Your task to perform on an android device: Search for "lenovo thinkpad" on walmart.com, select the first entry, add it to the cart, then select checkout. Image 0: 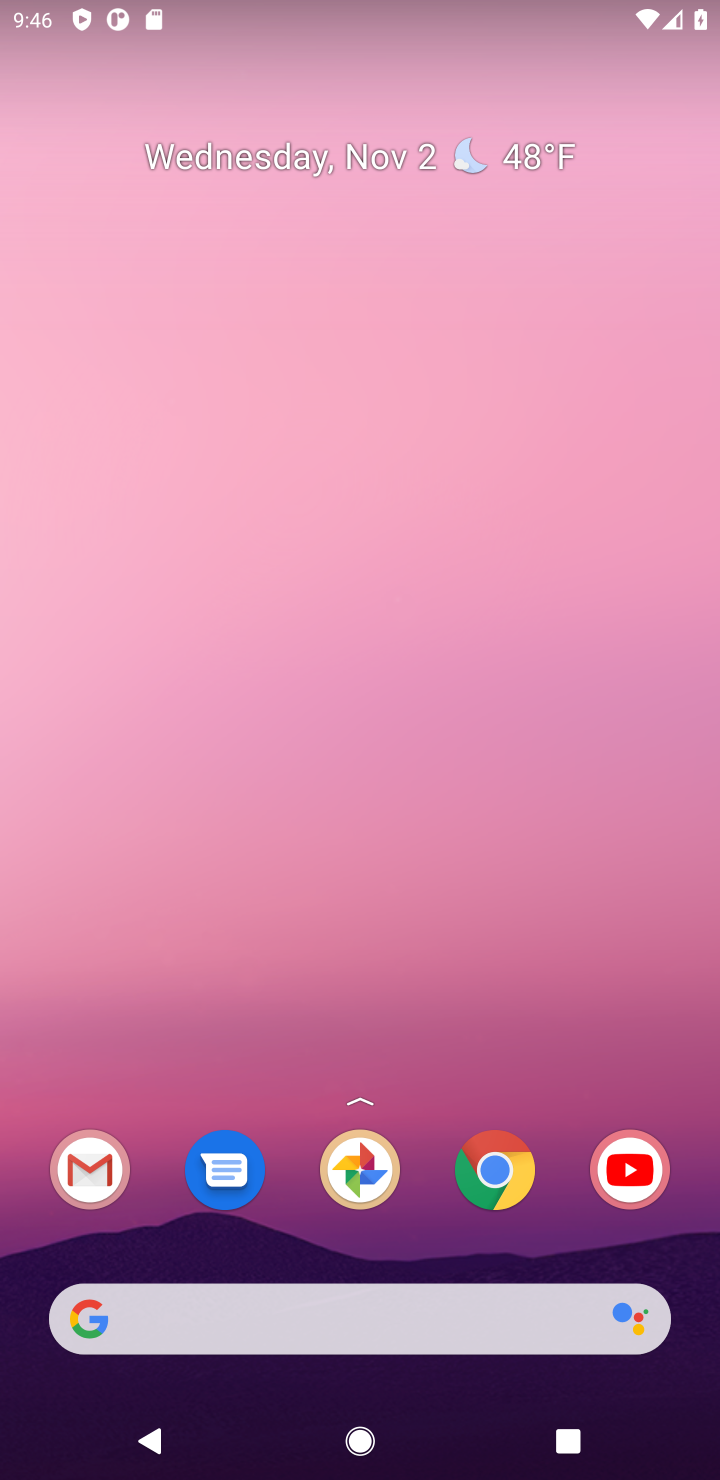
Step 0: drag from (335, 1121) to (416, 429)
Your task to perform on an android device: Search for "lenovo thinkpad" on walmart.com, select the first entry, add it to the cart, then select checkout. Image 1: 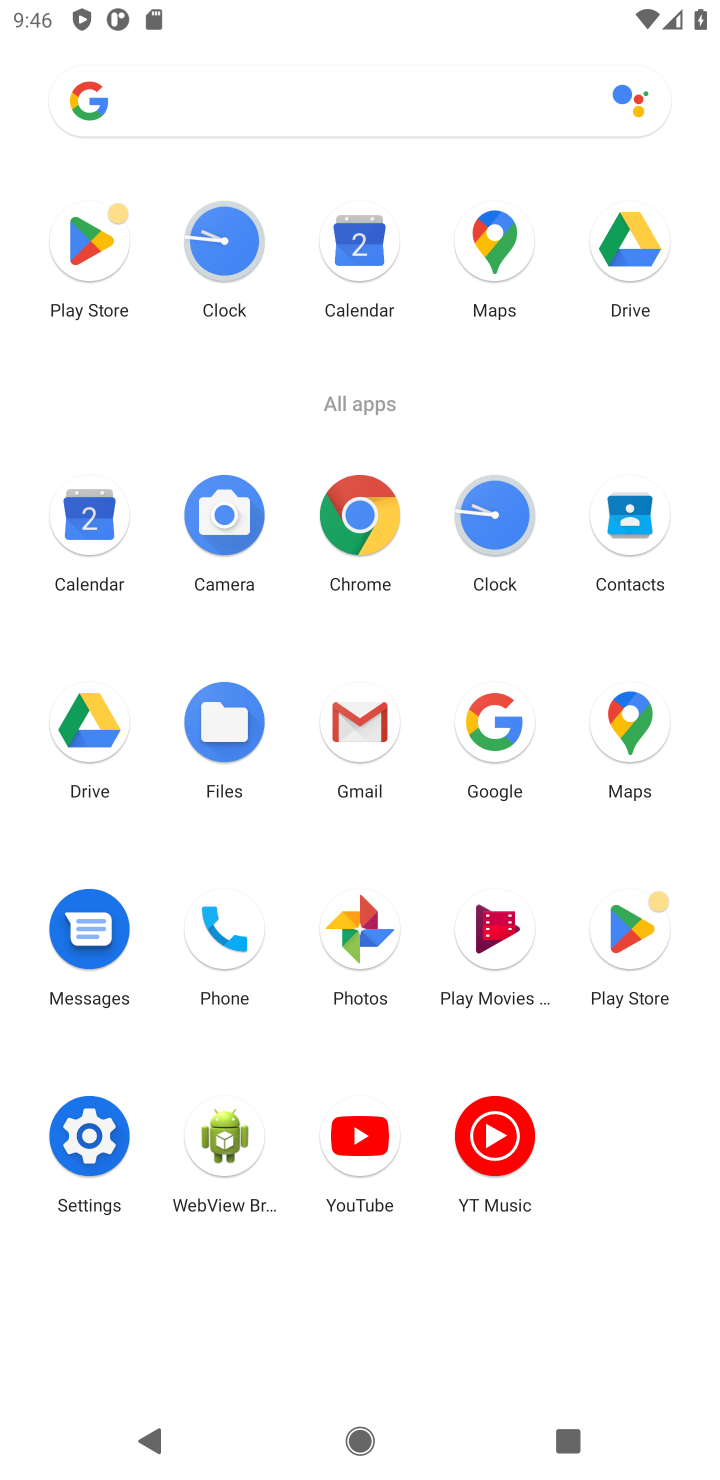
Step 1: click (476, 706)
Your task to perform on an android device: Search for "lenovo thinkpad" on walmart.com, select the first entry, add it to the cart, then select checkout. Image 2: 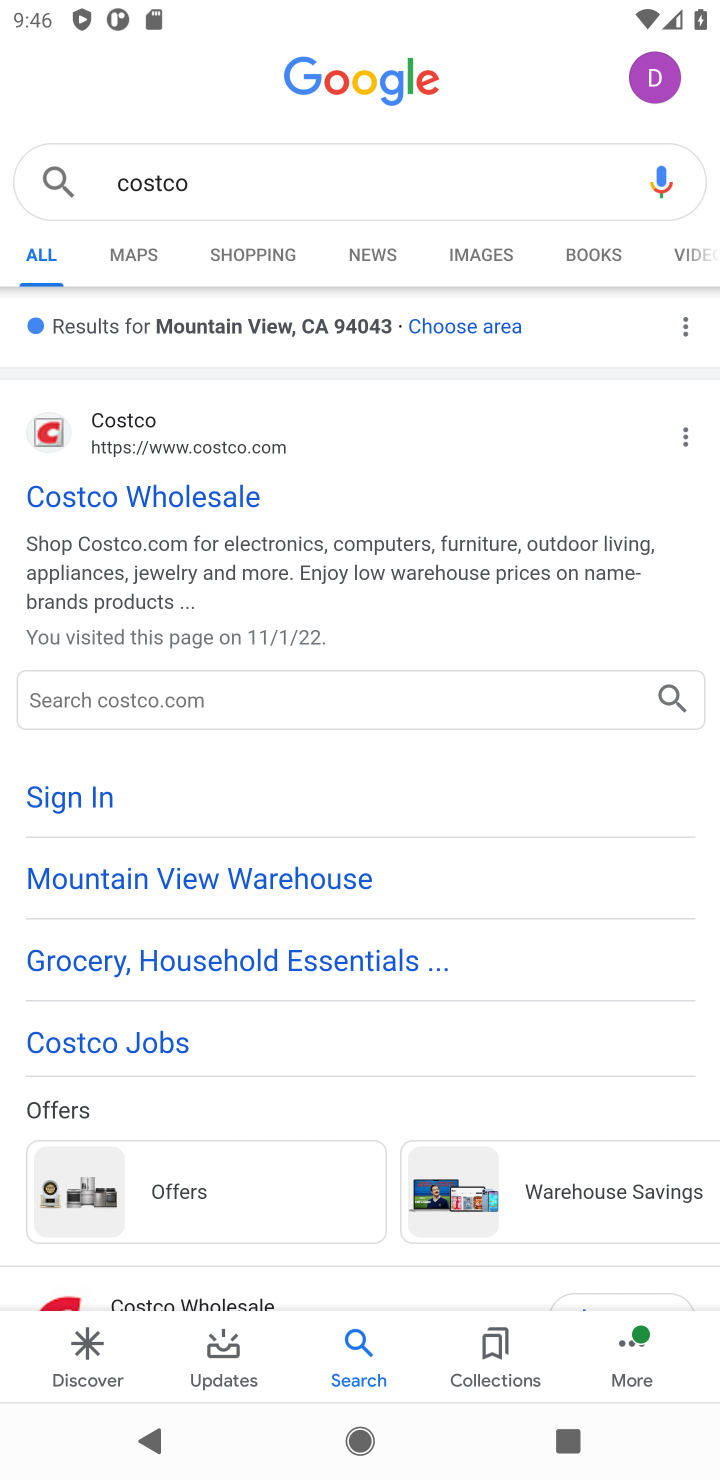
Step 2: click (274, 182)
Your task to perform on an android device: Search for "lenovo thinkpad" on walmart.com, select the first entry, add it to the cart, then select checkout. Image 3: 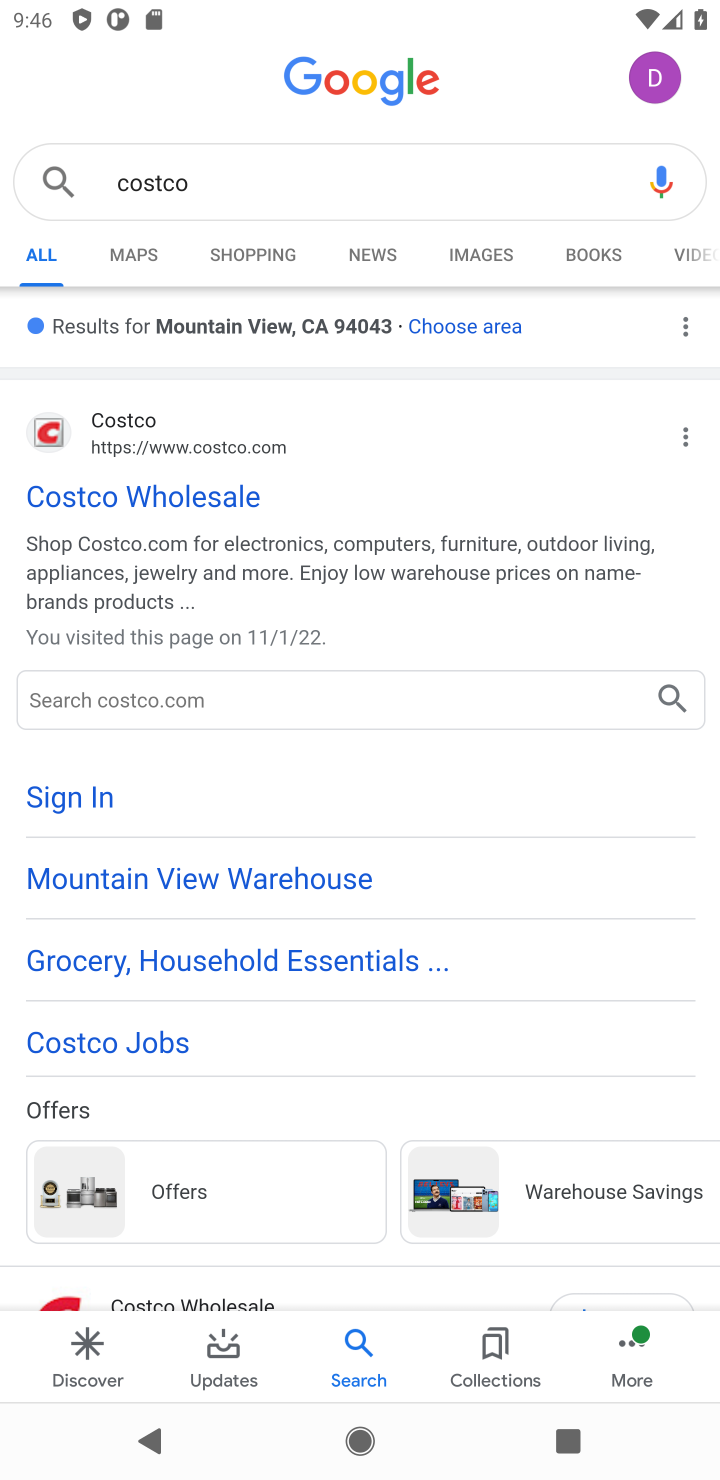
Step 3: click (274, 182)
Your task to perform on an android device: Search for "lenovo thinkpad" on walmart.com, select the first entry, add it to the cart, then select checkout. Image 4: 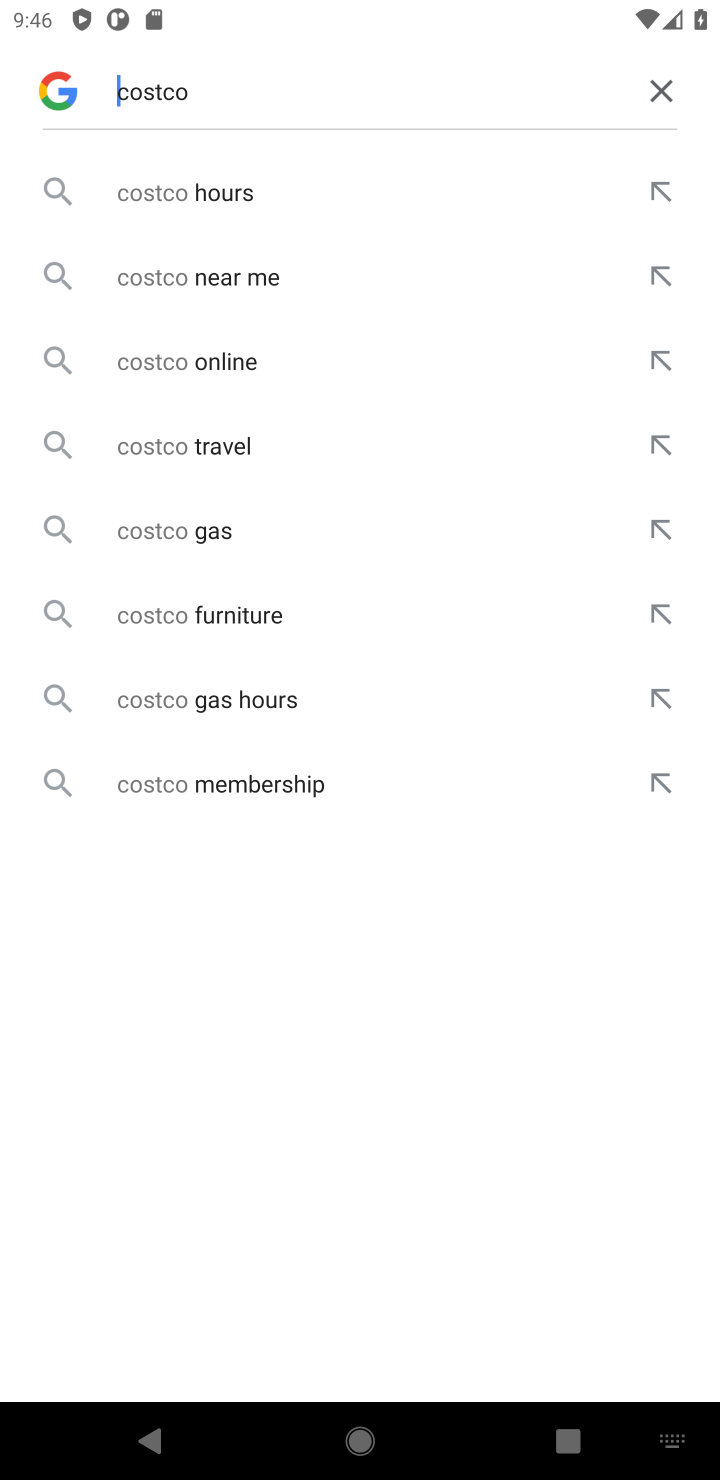
Step 4: click (670, 78)
Your task to perform on an android device: Search for "lenovo thinkpad" on walmart.com, select the first entry, add it to the cart, then select checkout. Image 5: 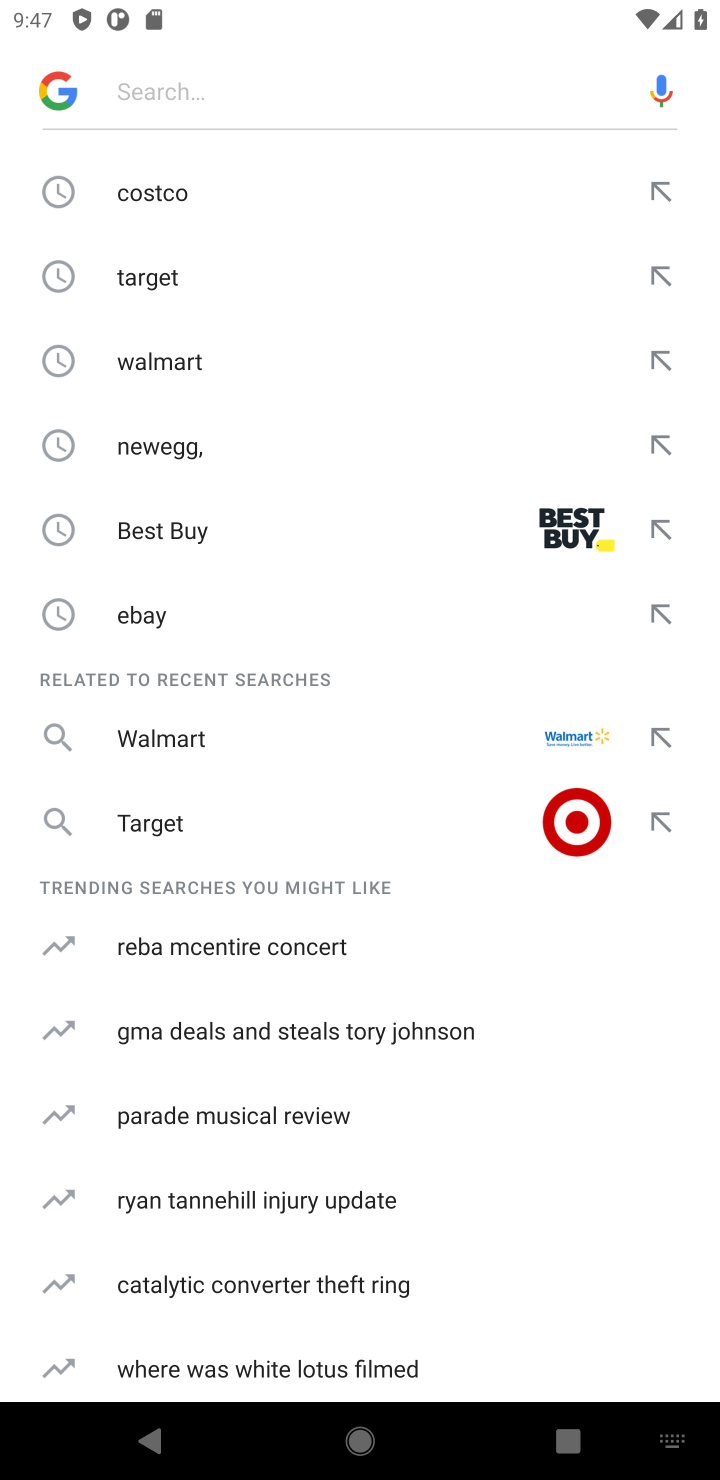
Step 5: click (230, 373)
Your task to perform on an android device: Search for "lenovo thinkpad" on walmart.com, select the first entry, add it to the cart, then select checkout. Image 6: 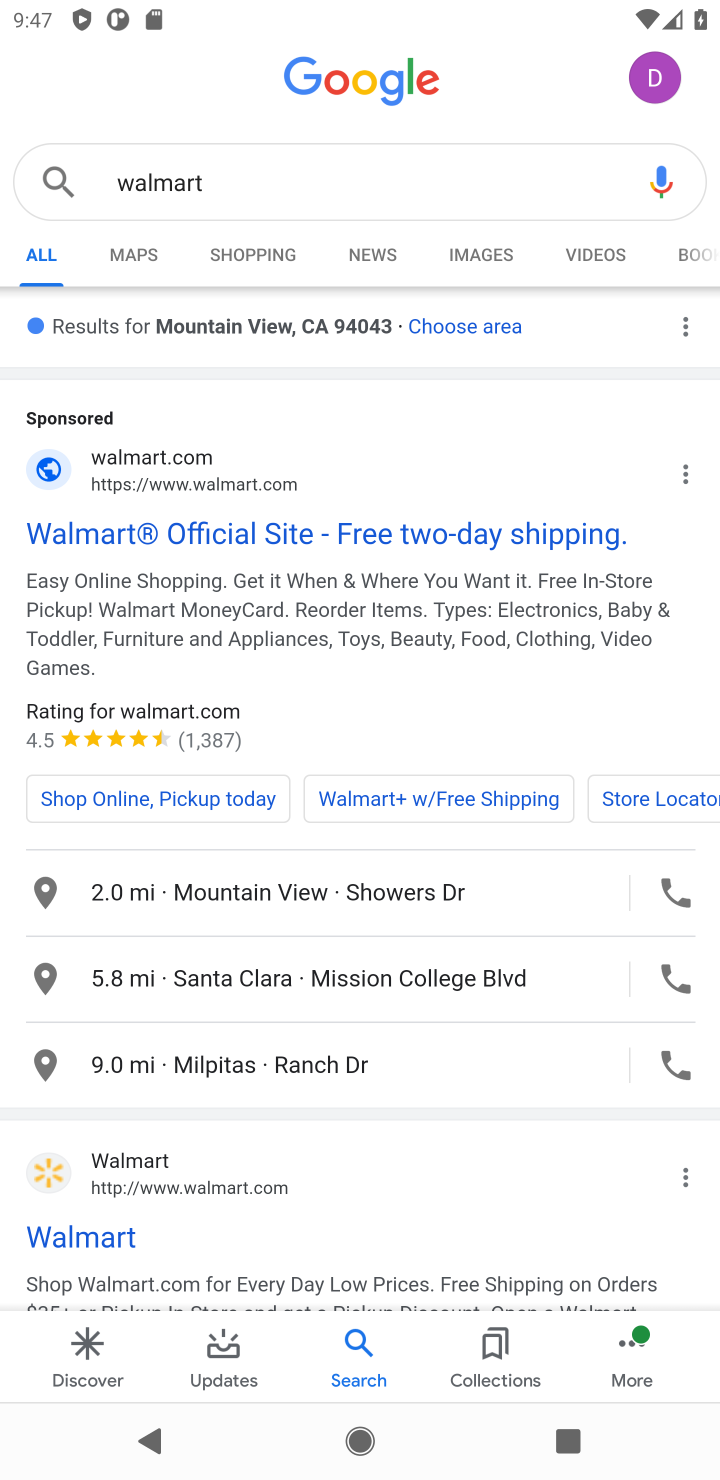
Step 6: click (508, 546)
Your task to perform on an android device: Search for "lenovo thinkpad" on walmart.com, select the first entry, add it to the cart, then select checkout. Image 7: 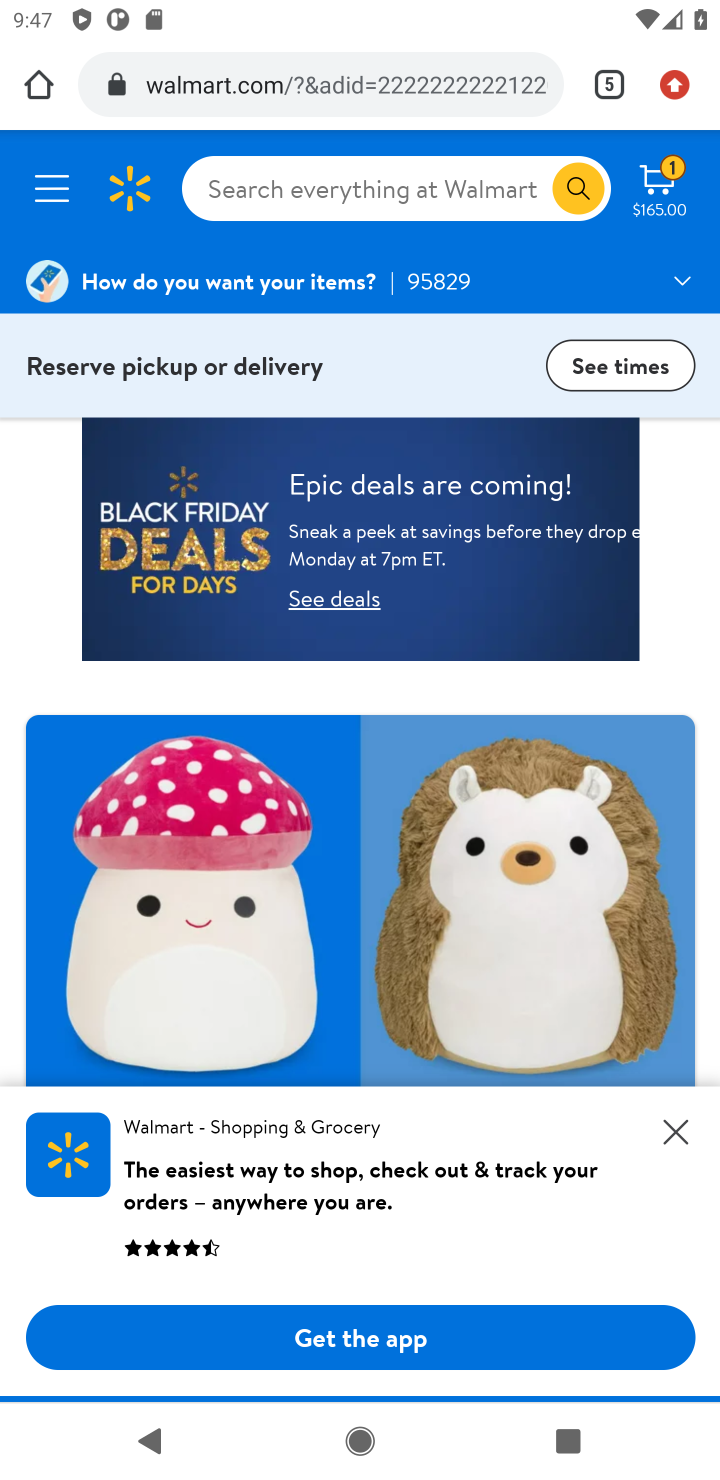
Step 7: click (433, 181)
Your task to perform on an android device: Search for "lenovo thinkpad" on walmart.com, select the first entry, add it to the cart, then select checkout. Image 8: 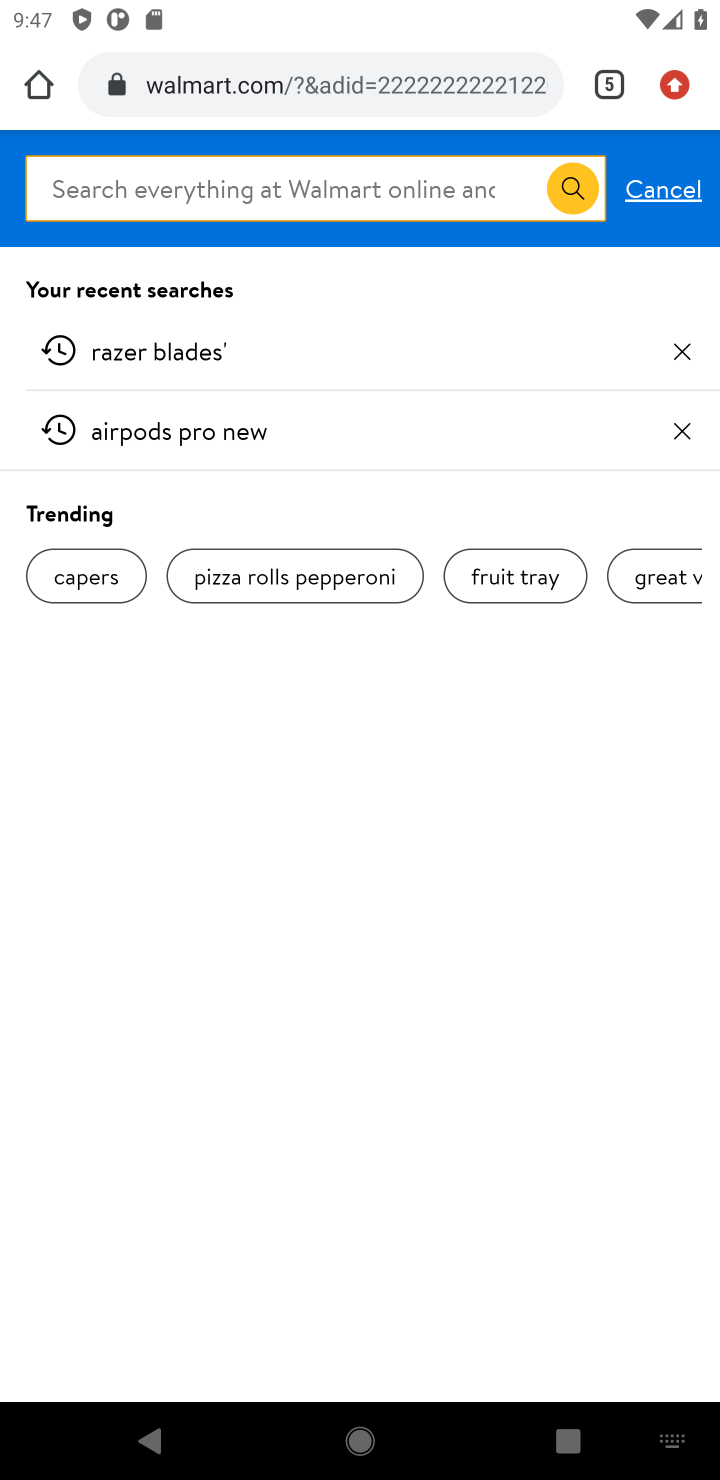
Step 8: type "lenovo thinkpad"
Your task to perform on an android device: Search for "lenovo thinkpad" on walmart.com, select the first entry, add it to the cart, then select checkout. Image 9: 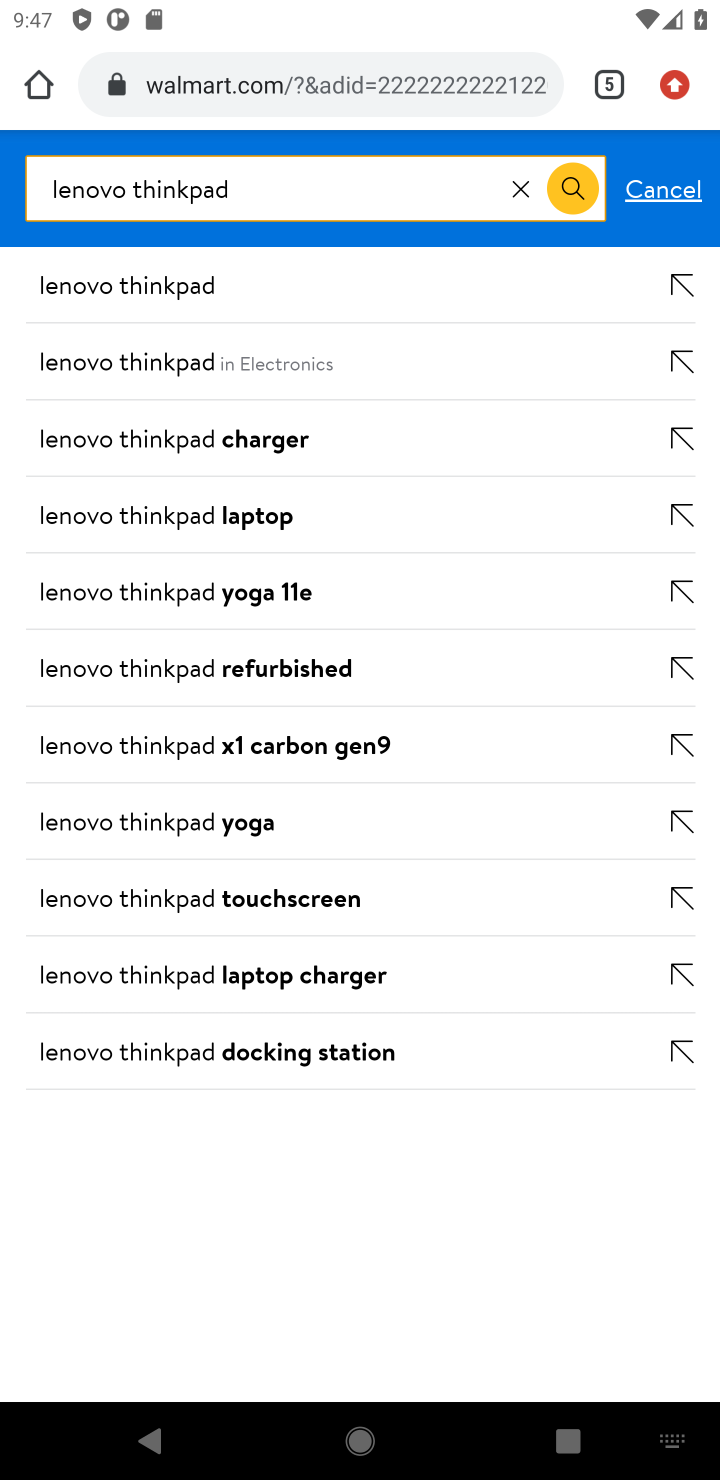
Step 9: click (254, 347)
Your task to perform on an android device: Search for "lenovo thinkpad" on walmart.com, select the first entry, add it to the cart, then select checkout. Image 10: 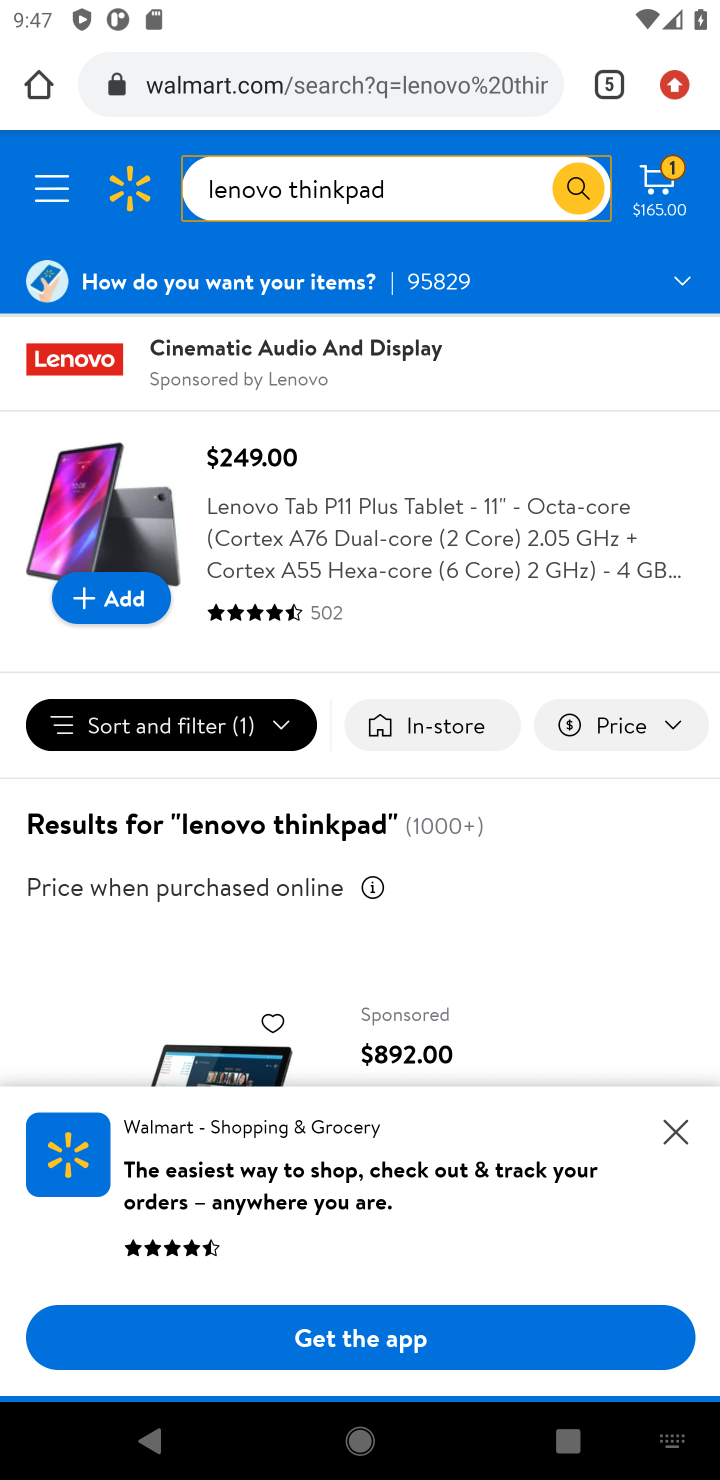
Step 10: click (668, 1132)
Your task to perform on an android device: Search for "lenovo thinkpad" on walmart.com, select the first entry, add it to the cart, then select checkout. Image 11: 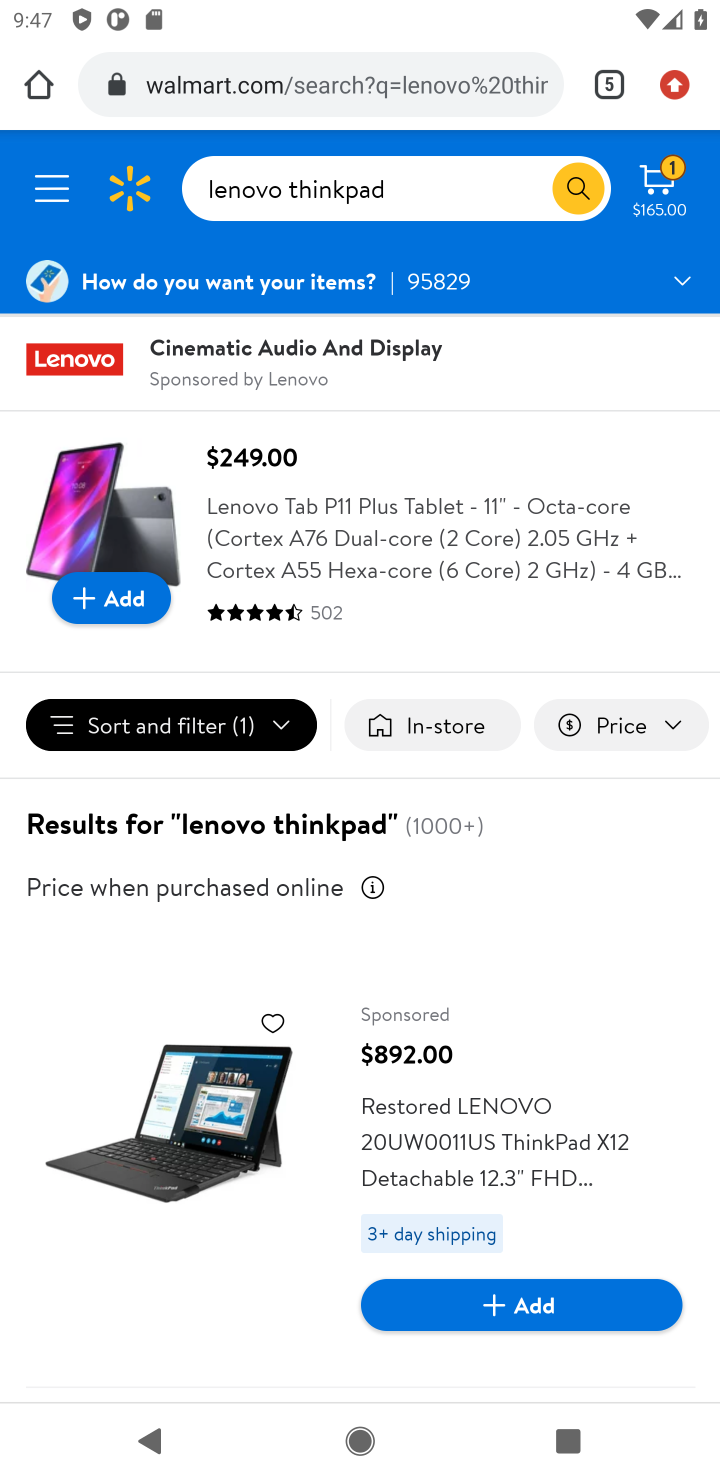
Step 11: click (493, 1305)
Your task to perform on an android device: Search for "lenovo thinkpad" on walmart.com, select the first entry, add it to the cart, then select checkout. Image 12: 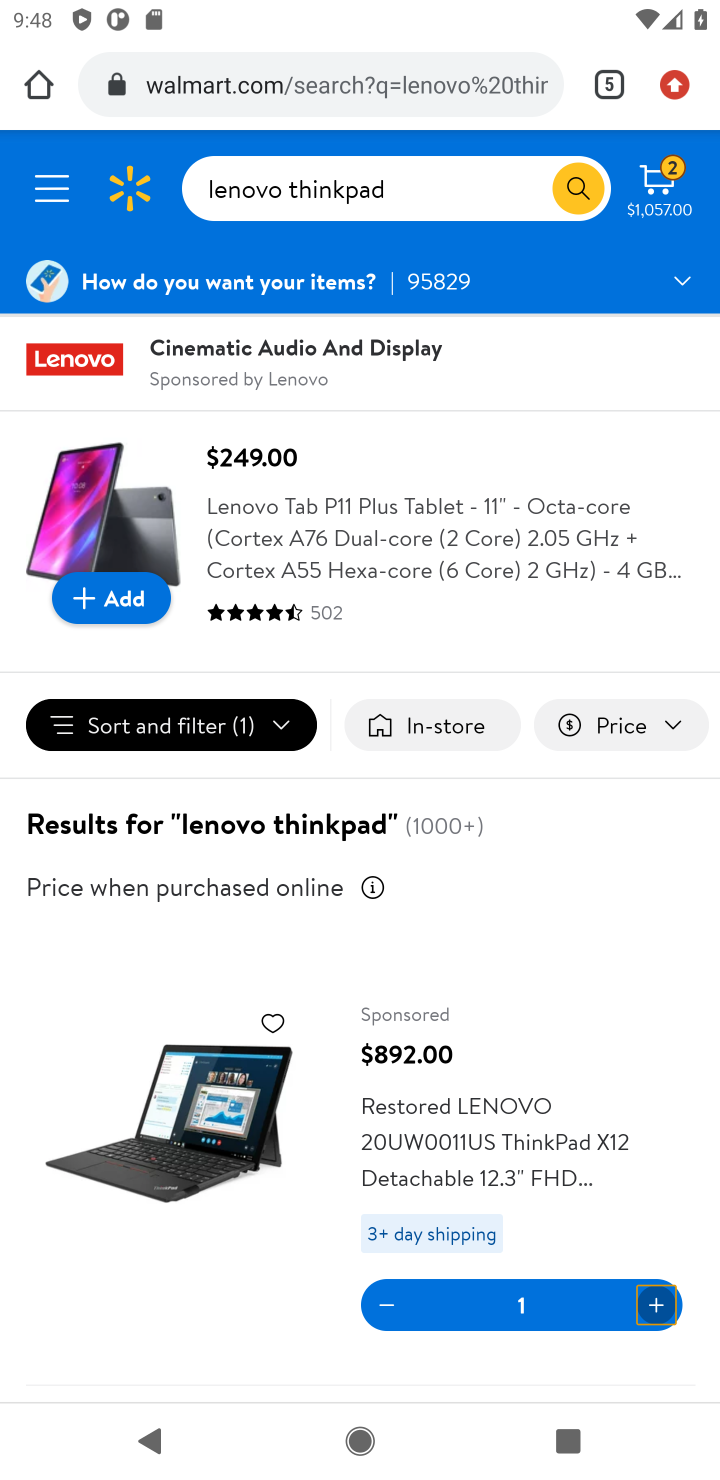
Step 12: click (671, 186)
Your task to perform on an android device: Search for "lenovo thinkpad" on walmart.com, select the first entry, add it to the cart, then select checkout. Image 13: 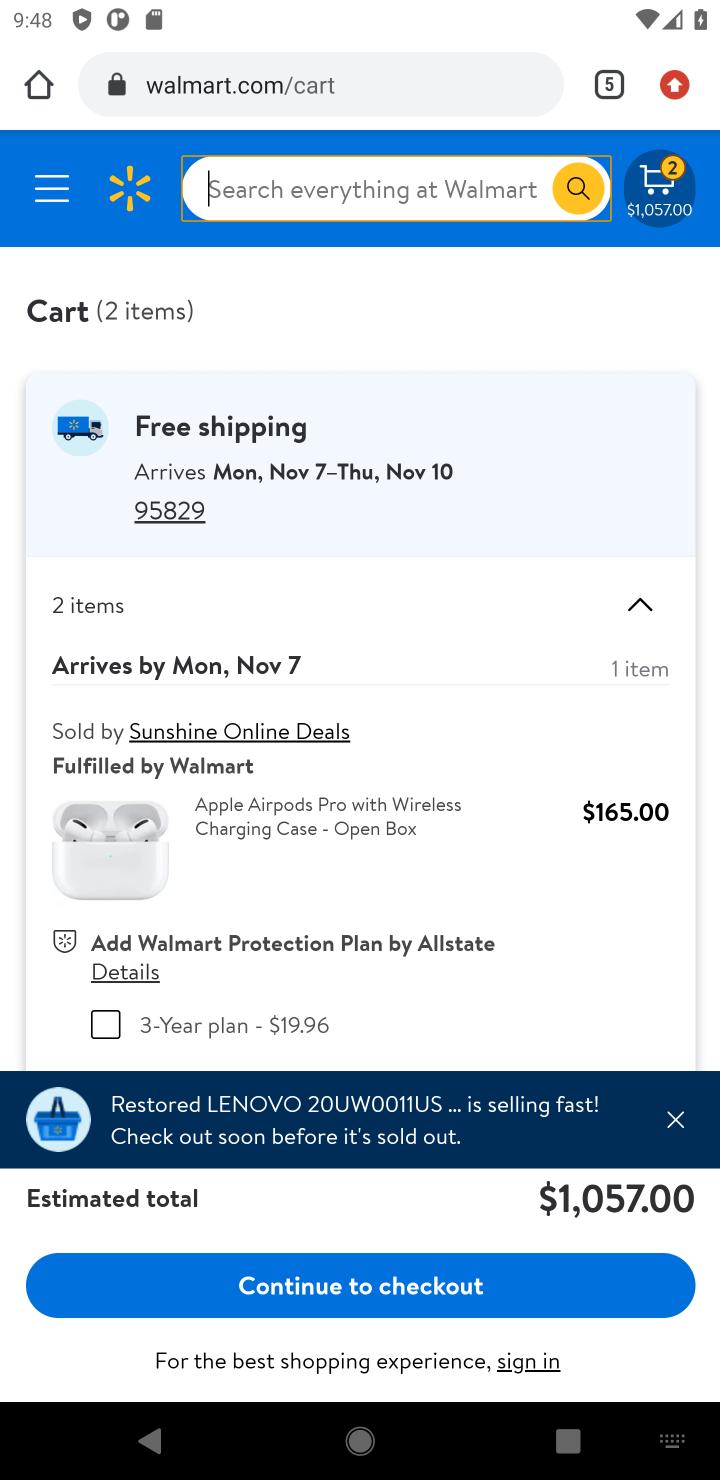
Step 13: click (409, 1293)
Your task to perform on an android device: Search for "lenovo thinkpad" on walmart.com, select the first entry, add it to the cart, then select checkout. Image 14: 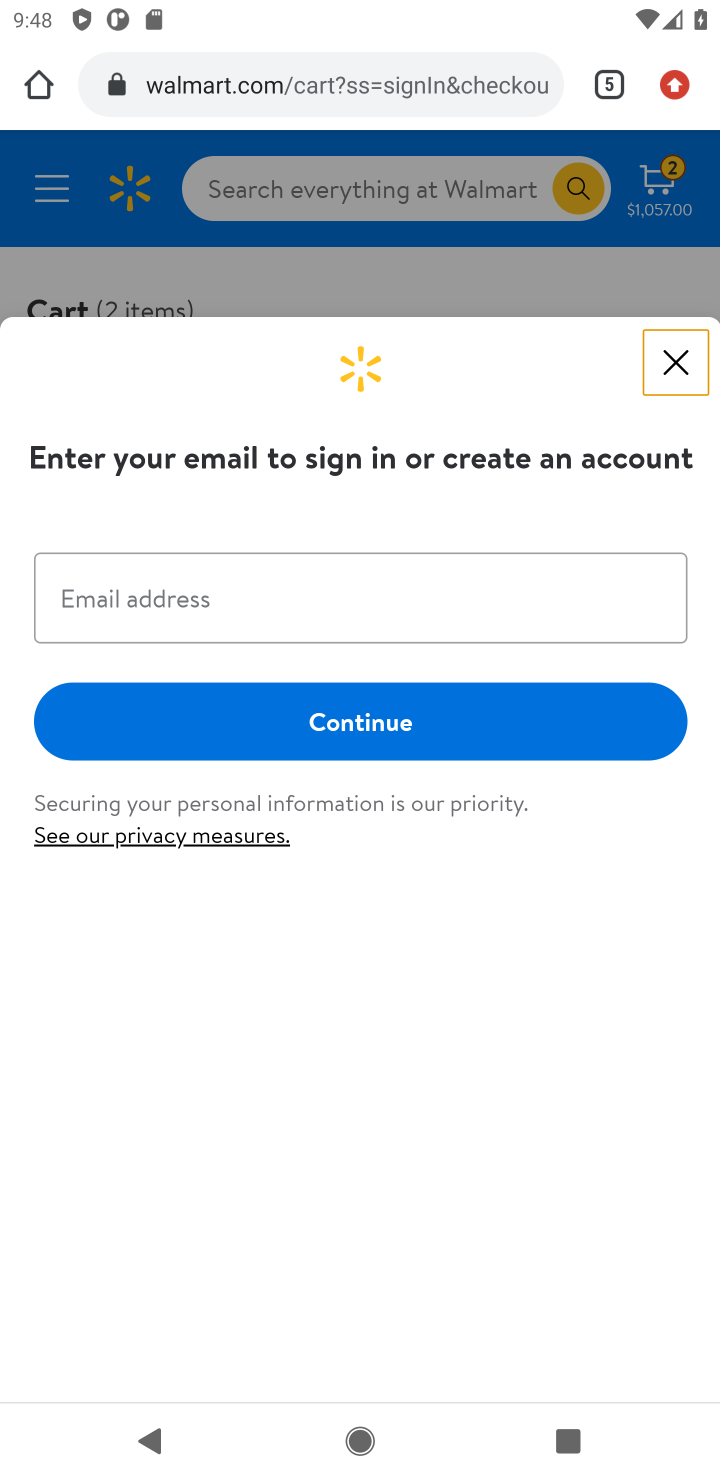
Step 14: task complete